Your task to perform on an android device: see tabs open on other devices in the chrome app Image 0: 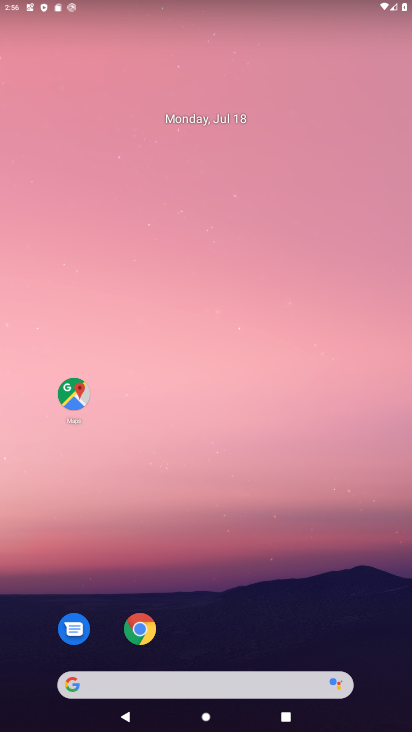
Step 0: drag from (212, 648) to (133, 89)
Your task to perform on an android device: see tabs open on other devices in the chrome app Image 1: 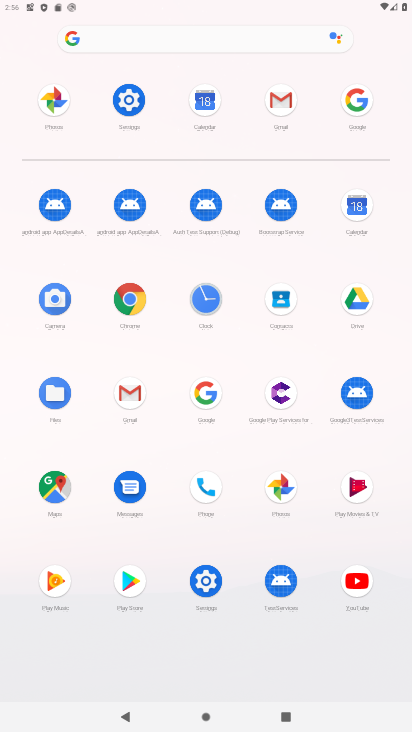
Step 1: click (118, 297)
Your task to perform on an android device: see tabs open on other devices in the chrome app Image 2: 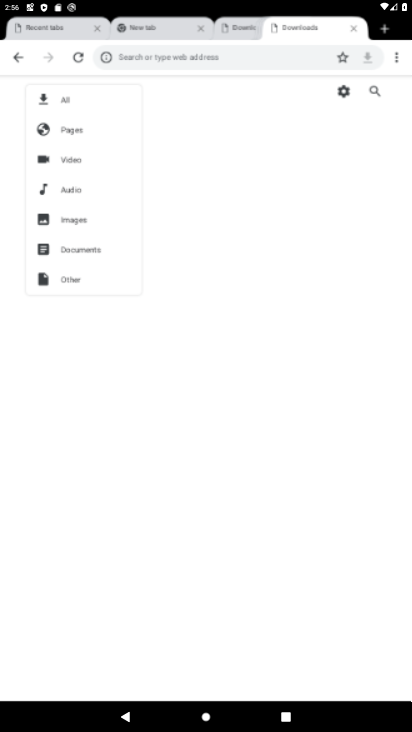
Step 2: click (388, 67)
Your task to perform on an android device: see tabs open on other devices in the chrome app Image 3: 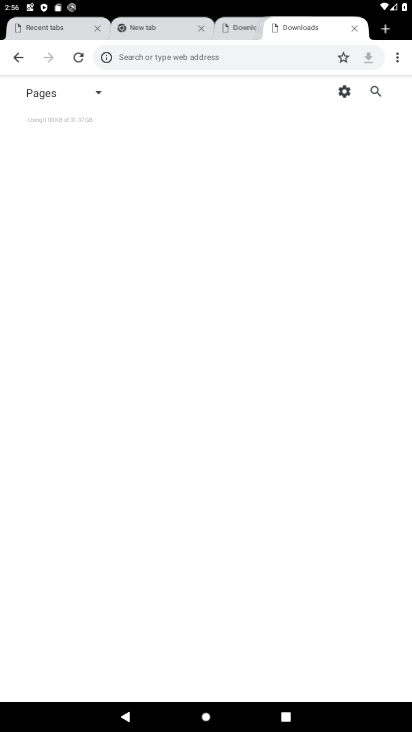
Step 3: click (401, 58)
Your task to perform on an android device: see tabs open on other devices in the chrome app Image 4: 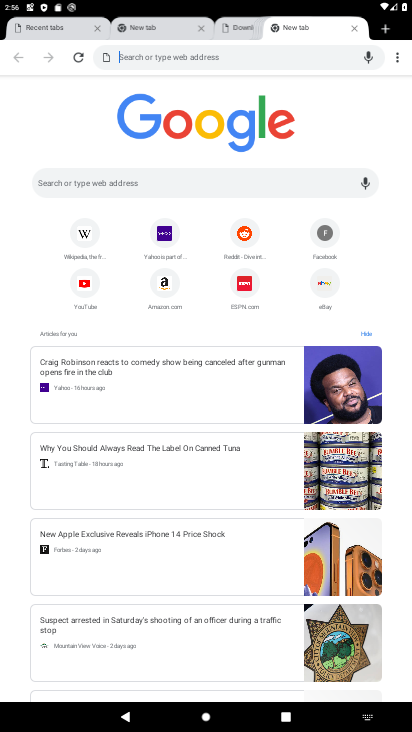
Step 4: click (401, 58)
Your task to perform on an android device: see tabs open on other devices in the chrome app Image 5: 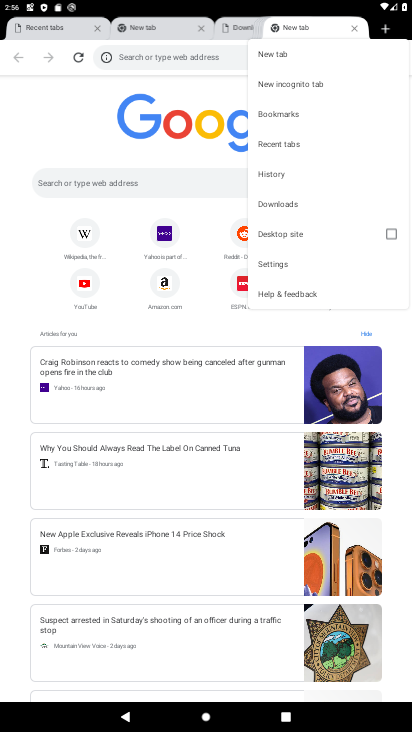
Step 5: click (305, 144)
Your task to perform on an android device: see tabs open on other devices in the chrome app Image 6: 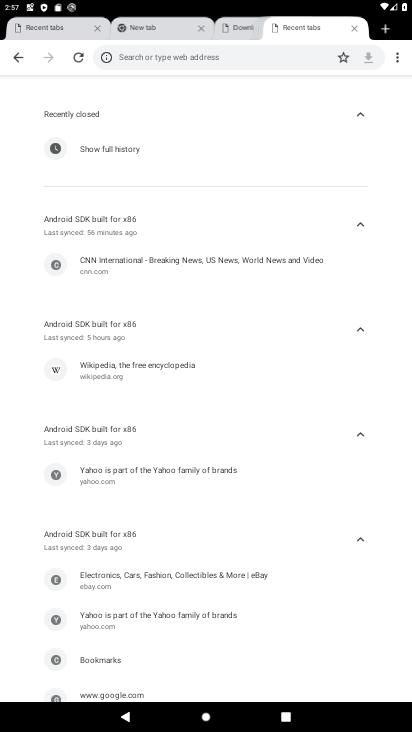
Step 6: task complete